Your task to perform on an android device: Search for vegetarian restaurants on Maps Image 0: 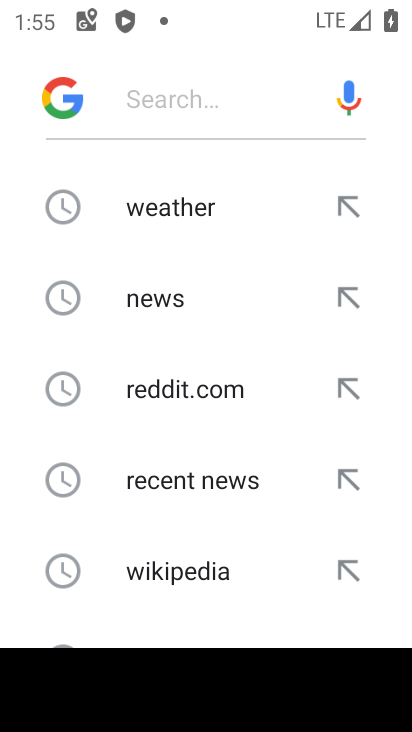
Step 0: drag from (208, 511) to (213, 55)
Your task to perform on an android device: Search for vegetarian restaurants on Maps Image 1: 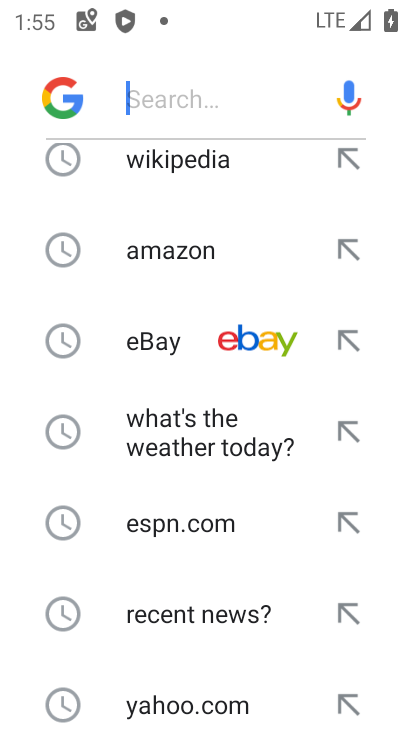
Step 1: drag from (209, 532) to (189, 161)
Your task to perform on an android device: Search for vegetarian restaurants on Maps Image 2: 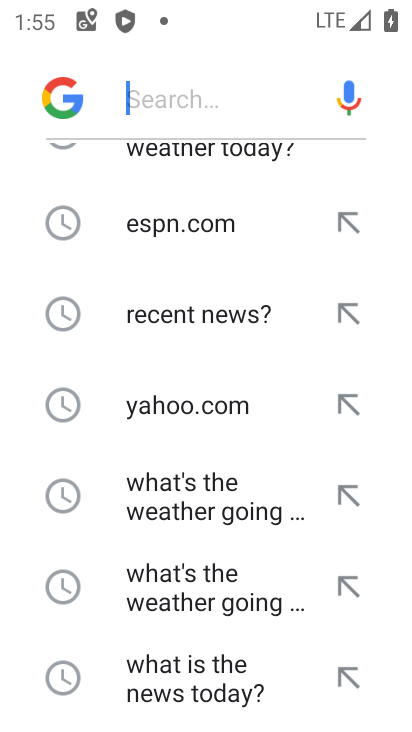
Step 2: drag from (171, 601) to (127, 28)
Your task to perform on an android device: Search for vegetarian restaurants on Maps Image 3: 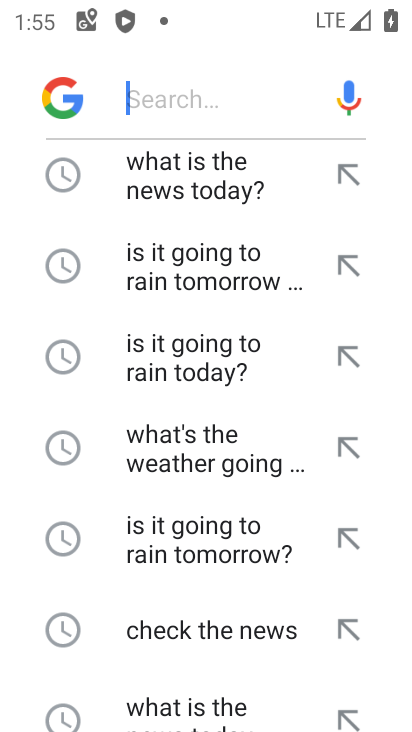
Step 3: drag from (201, 619) to (166, 122)
Your task to perform on an android device: Search for vegetarian restaurants on Maps Image 4: 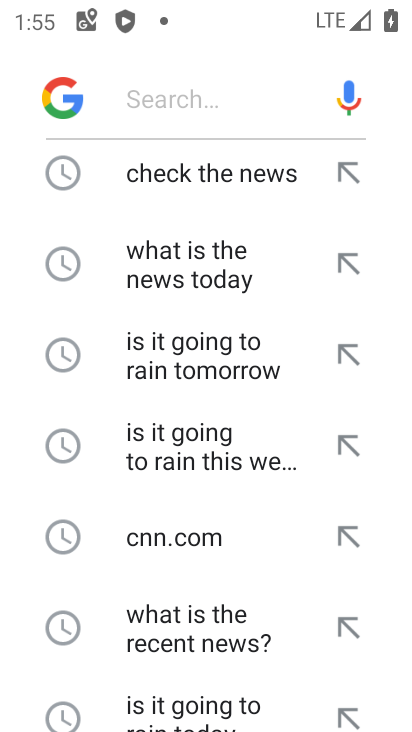
Step 4: type "vegetarian"
Your task to perform on an android device: Search for vegetarian restaurants on Maps Image 5: 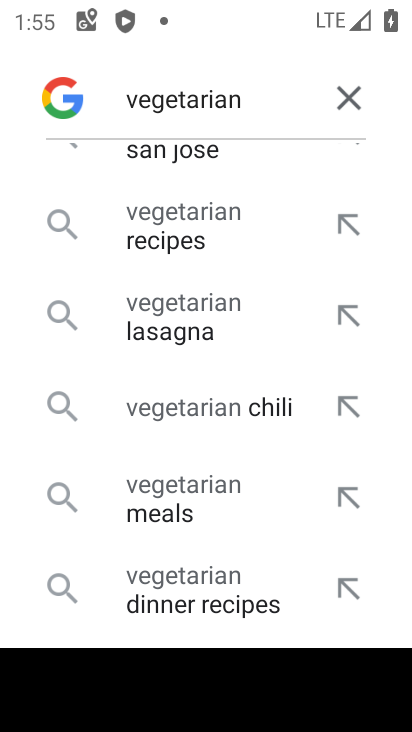
Step 5: click (134, 104)
Your task to perform on an android device: Search for vegetarian restaurants on Maps Image 6: 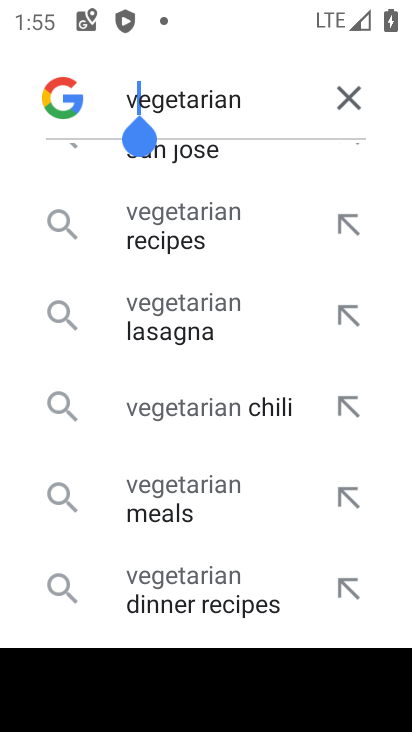
Step 6: press home button
Your task to perform on an android device: Search for vegetarian restaurants on Maps Image 7: 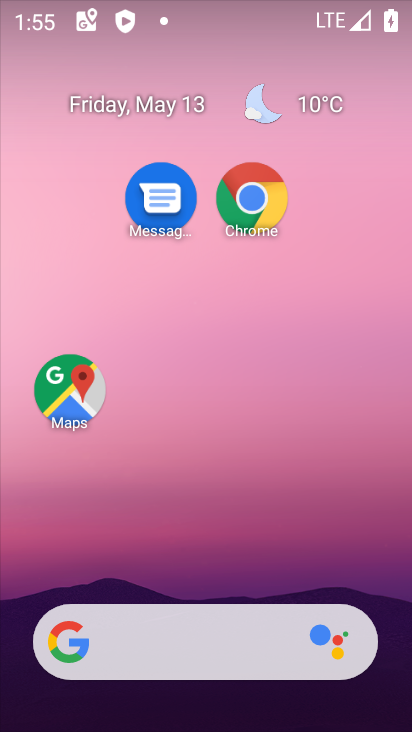
Step 7: click (72, 398)
Your task to perform on an android device: Search for vegetarian restaurants on Maps Image 8: 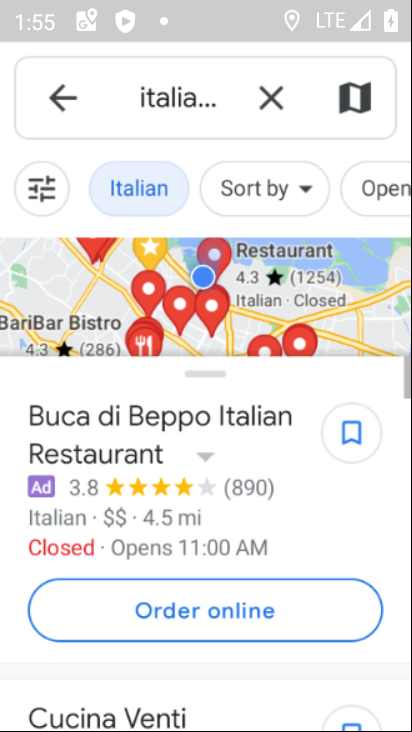
Step 8: click (254, 90)
Your task to perform on an android device: Search for vegetarian restaurants on Maps Image 9: 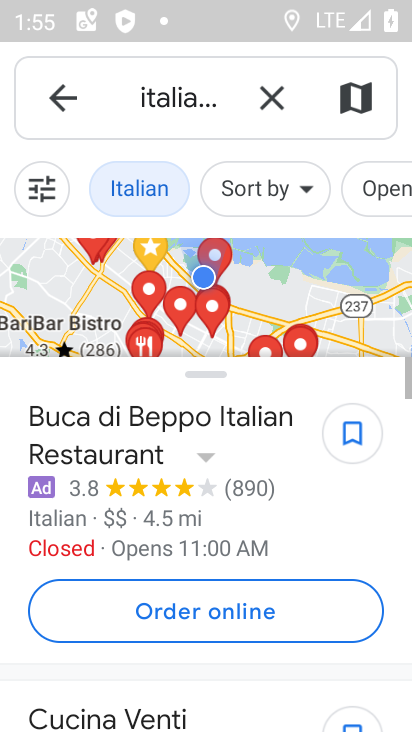
Step 9: click (268, 76)
Your task to perform on an android device: Search for vegetarian restaurants on Maps Image 10: 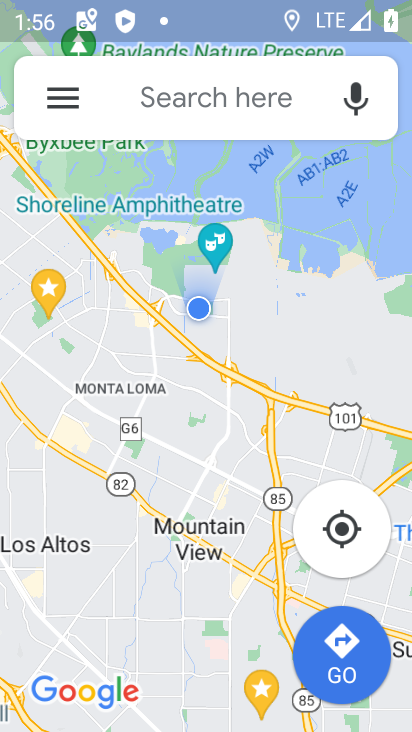
Step 10: click (195, 121)
Your task to perform on an android device: Search for vegetarian restaurants on Maps Image 11: 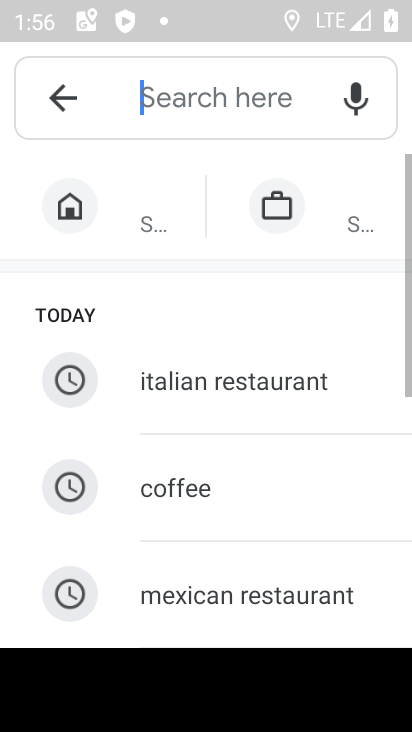
Step 11: drag from (258, 524) to (198, 88)
Your task to perform on an android device: Search for vegetarian restaurants on Maps Image 12: 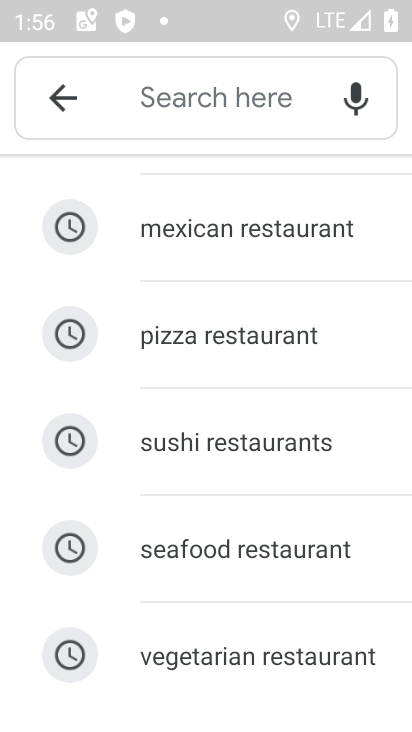
Step 12: click (256, 656)
Your task to perform on an android device: Search for vegetarian restaurants on Maps Image 13: 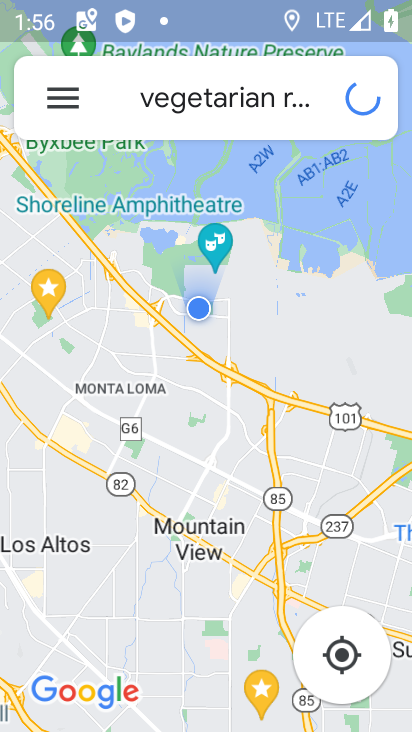
Step 13: task complete